Your task to perform on an android device: Open the calendar and show me this week's events? Image 0: 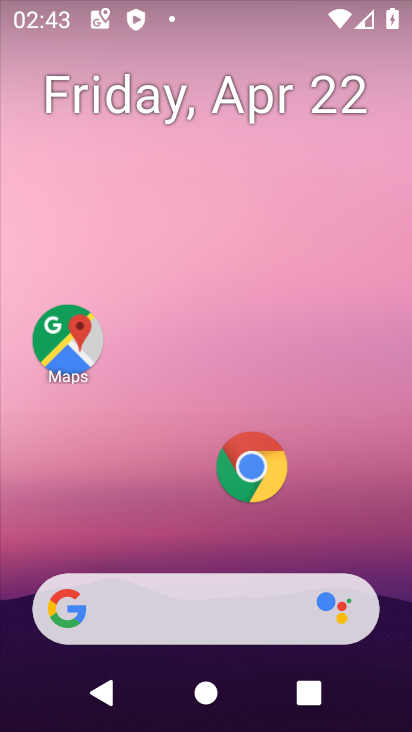
Step 0: drag from (132, 519) to (147, 164)
Your task to perform on an android device: Open the calendar and show me this week's events? Image 1: 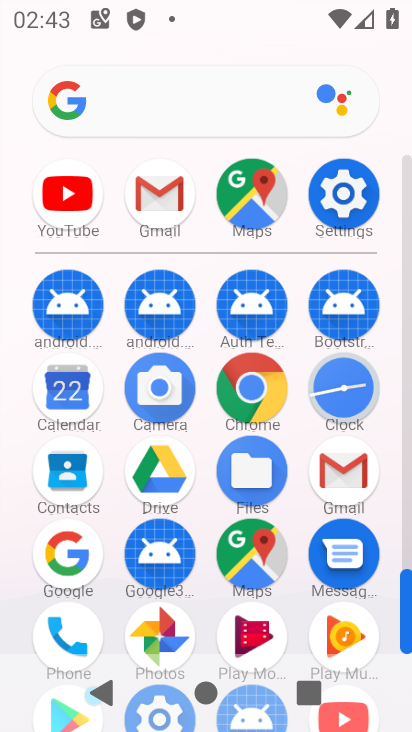
Step 1: click (66, 414)
Your task to perform on an android device: Open the calendar and show me this week's events? Image 2: 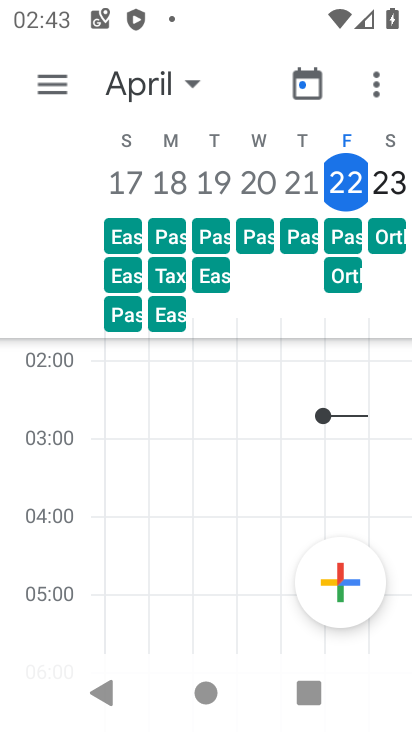
Step 2: click (175, 77)
Your task to perform on an android device: Open the calendar and show me this week's events? Image 3: 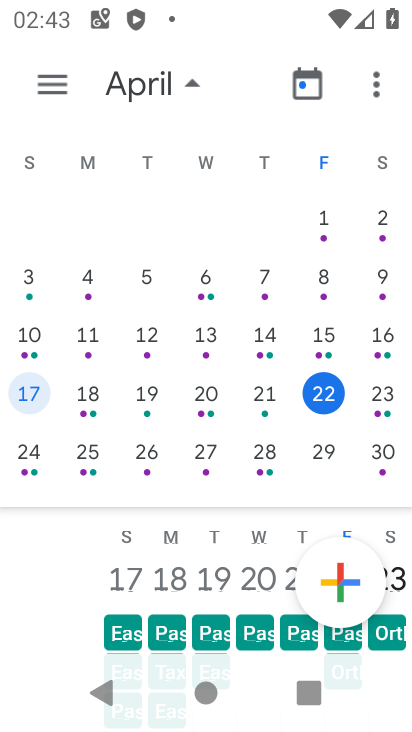
Step 3: click (380, 403)
Your task to perform on an android device: Open the calendar and show me this week's events? Image 4: 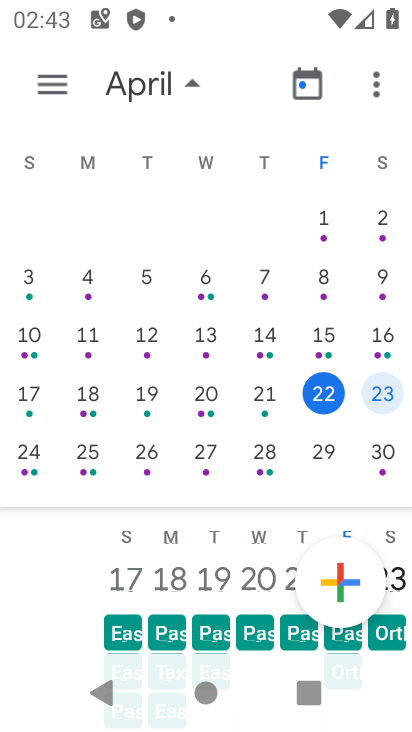
Step 4: click (23, 464)
Your task to perform on an android device: Open the calendar and show me this week's events? Image 5: 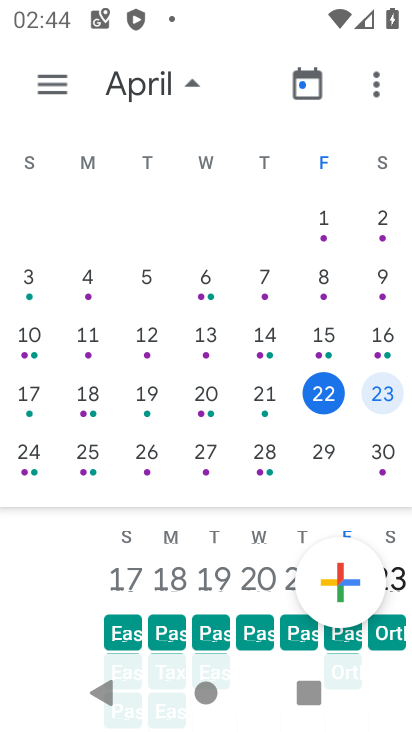
Step 5: click (20, 464)
Your task to perform on an android device: Open the calendar and show me this week's events? Image 6: 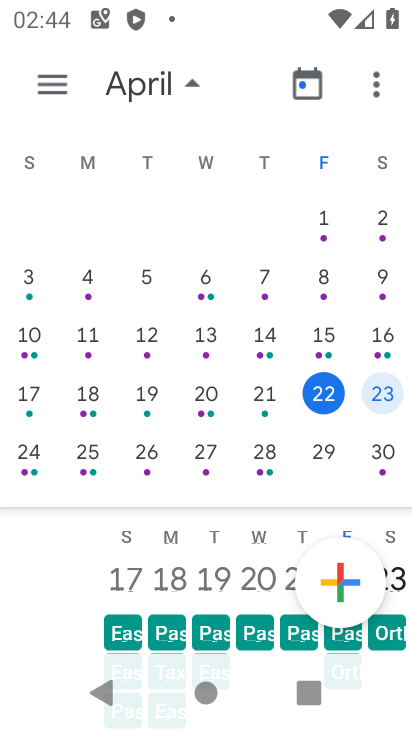
Step 6: task complete